Your task to perform on an android device: toggle show notifications on the lock screen Image 0: 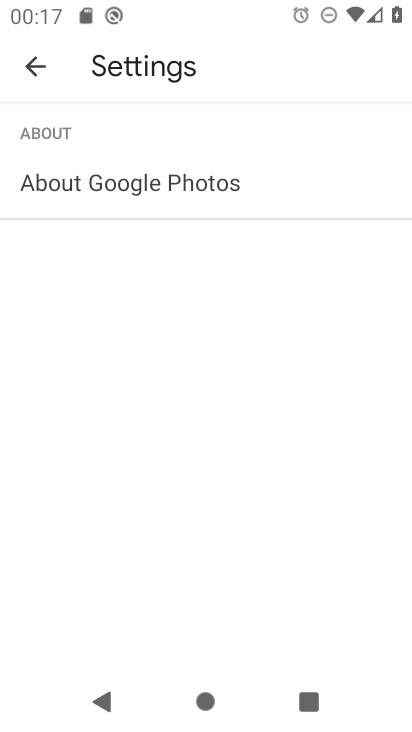
Step 0: press home button
Your task to perform on an android device: toggle show notifications on the lock screen Image 1: 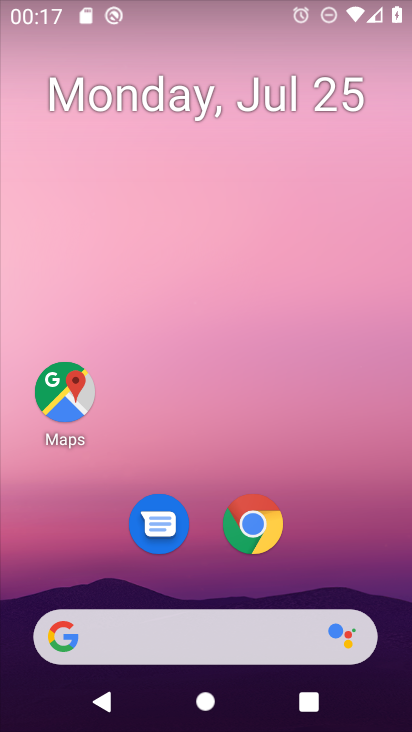
Step 1: drag from (175, 652) to (356, 97)
Your task to perform on an android device: toggle show notifications on the lock screen Image 2: 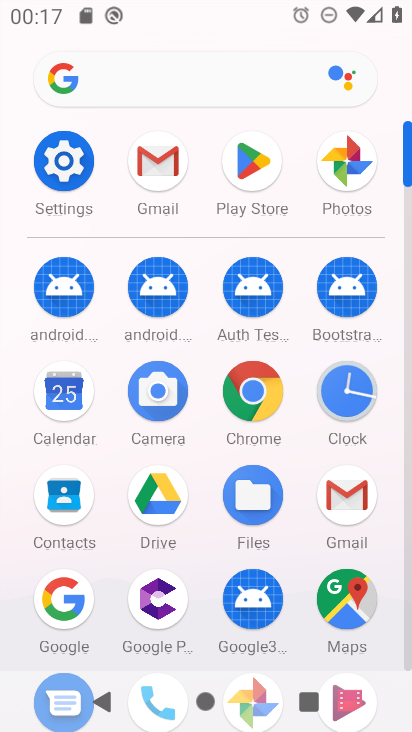
Step 2: click (72, 160)
Your task to perform on an android device: toggle show notifications on the lock screen Image 3: 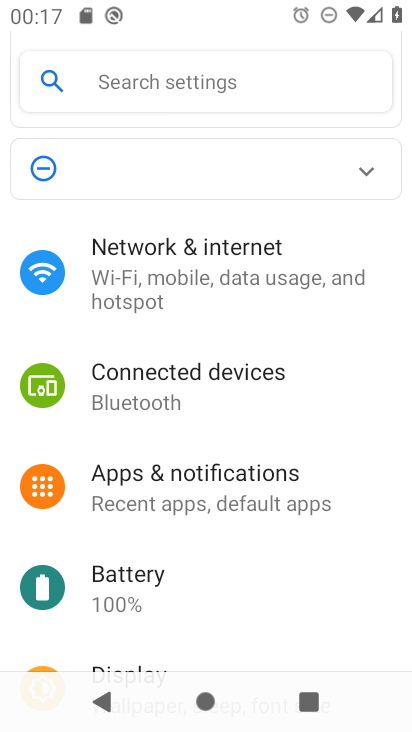
Step 3: click (193, 487)
Your task to perform on an android device: toggle show notifications on the lock screen Image 4: 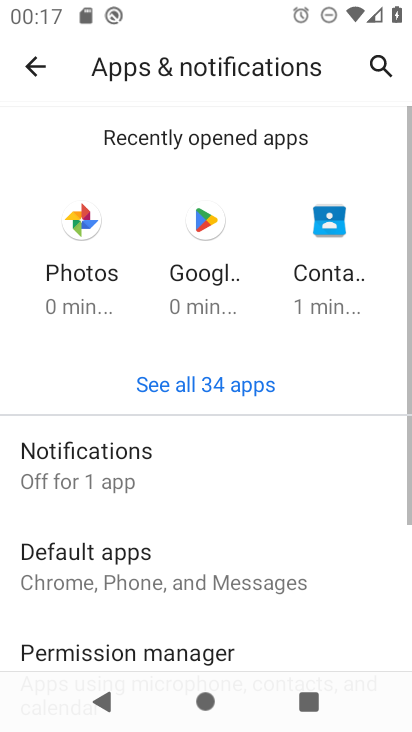
Step 4: drag from (286, 313) to (382, 18)
Your task to perform on an android device: toggle show notifications on the lock screen Image 5: 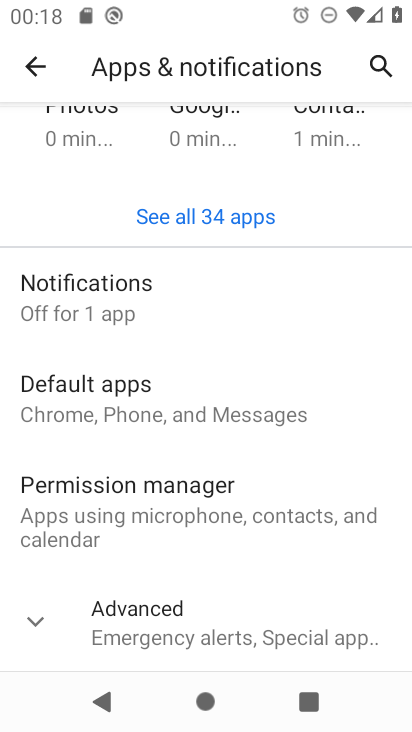
Step 5: click (93, 310)
Your task to perform on an android device: toggle show notifications on the lock screen Image 6: 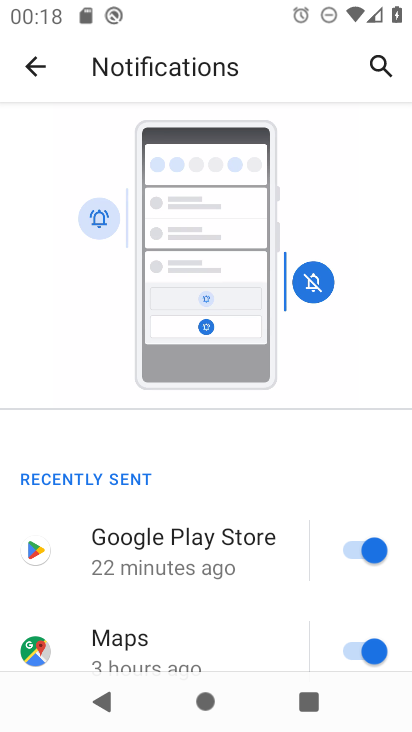
Step 6: drag from (215, 624) to (366, 138)
Your task to perform on an android device: toggle show notifications on the lock screen Image 7: 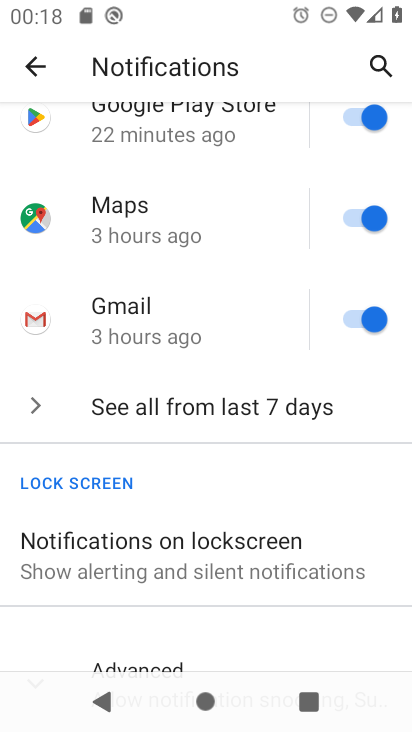
Step 7: click (203, 547)
Your task to perform on an android device: toggle show notifications on the lock screen Image 8: 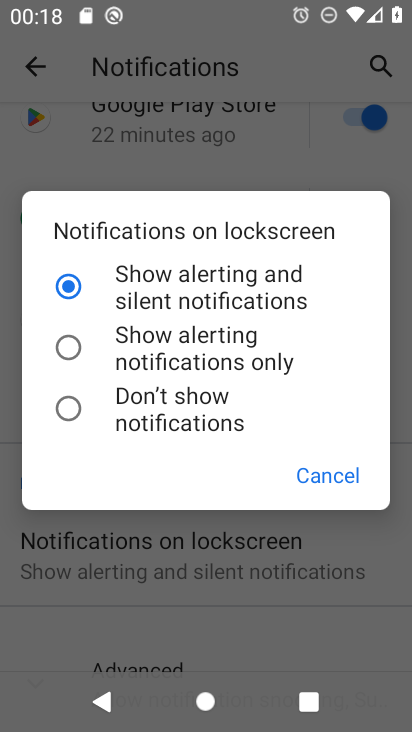
Step 8: click (68, 410)
Your task to perform on an android device: toggle show notifications on the lock screen Image 9: 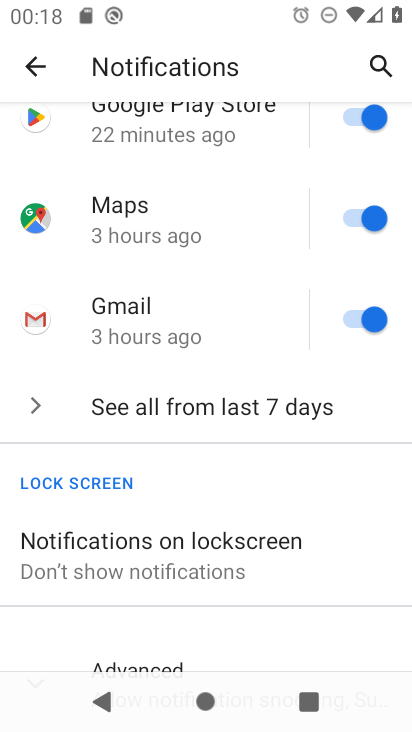
Step 9: task complete